Your task to perform on an android device: find snoozed emails in the gmail app Image 0: 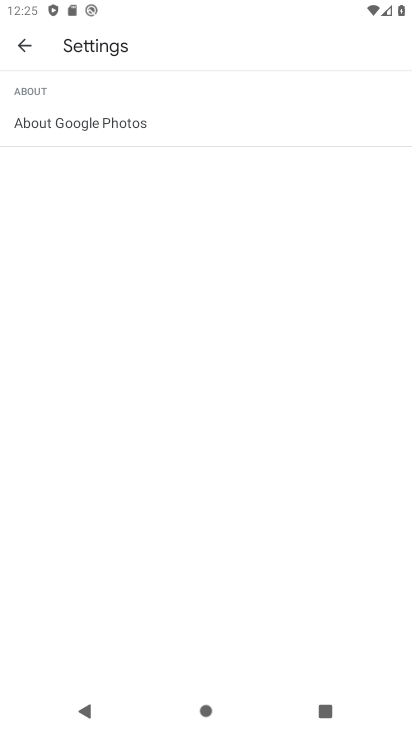
Step 0: press home button
Your task to perform on an android device: find snoozed emails in the gmail app Image 1: 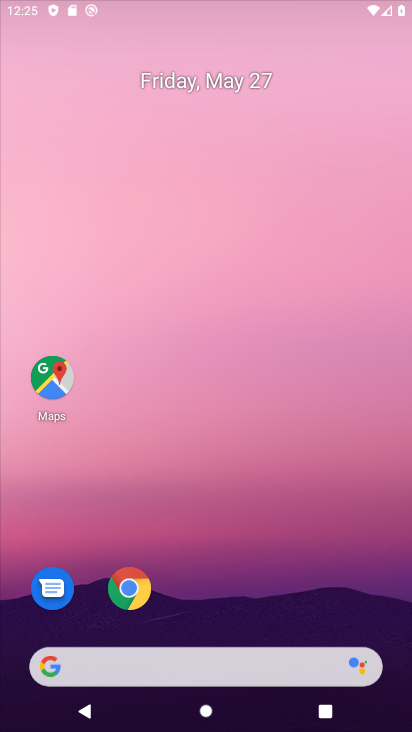
Step 1: drag from (133, 730) to (254, 60)
Your task to perform on an android device: find snoozed emails in the gmail app Image 2: 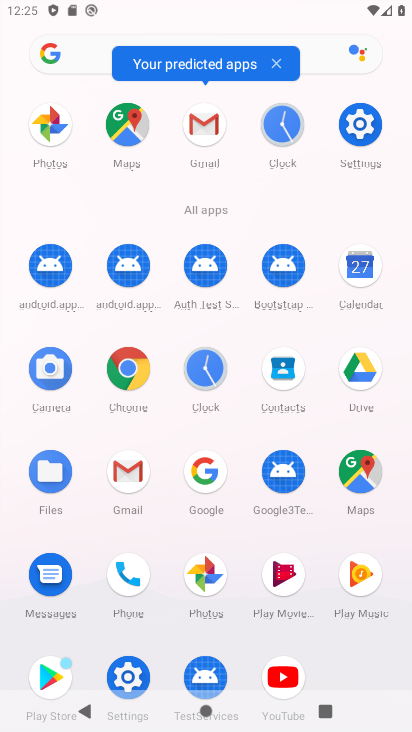
Step 2: click (191, 125)
Your task to perform on an android device: find snoozed emails in the gmail app Image 3: 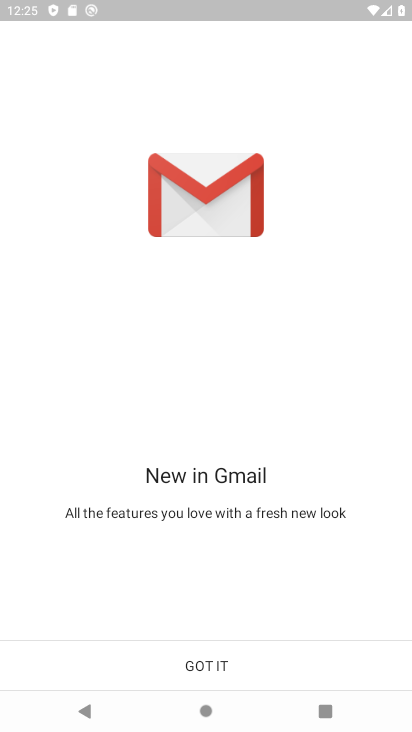
Step 3: click (221, 671)
Your task to perform on an android device: find snoozed emails in the gmail app Image 4: 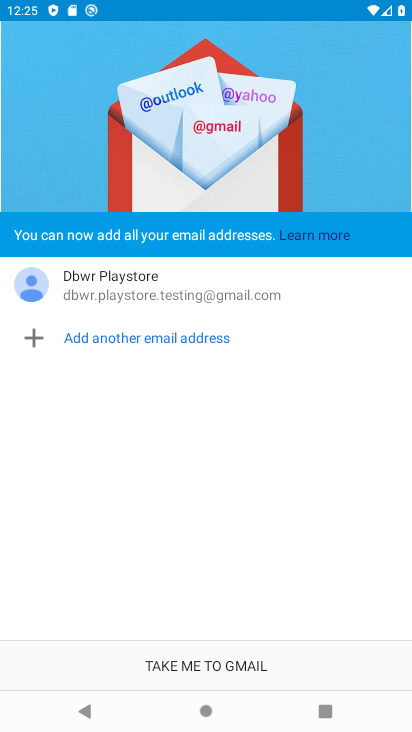
Step 4: click (212, 673)
Your task to perform on an android device: find snoozed emails in the gmail app Image 5: 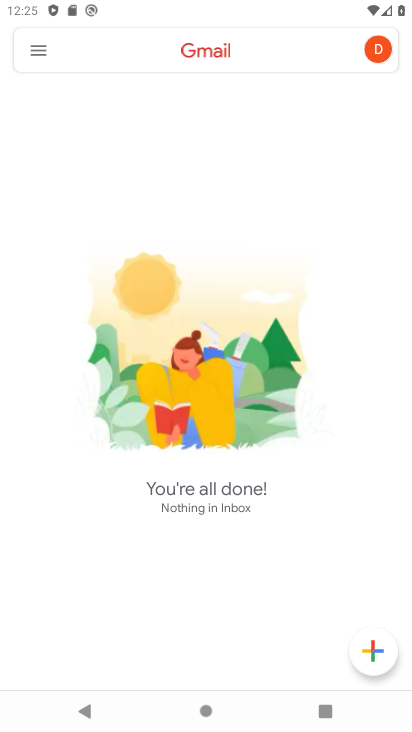
Step 5: click (28, 54)
Your task to perform on an android device: find snoozed emails in the gmail app Image 6: 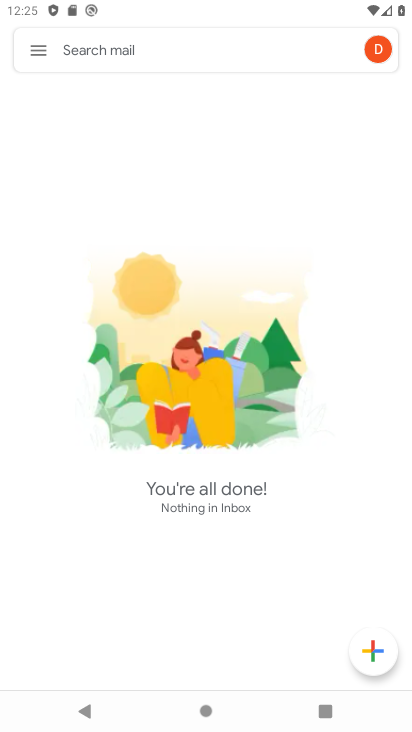
Step 6: click (38, 53)
Your task to perform on an android device: find snoozed emails in the gmail app Image 7: 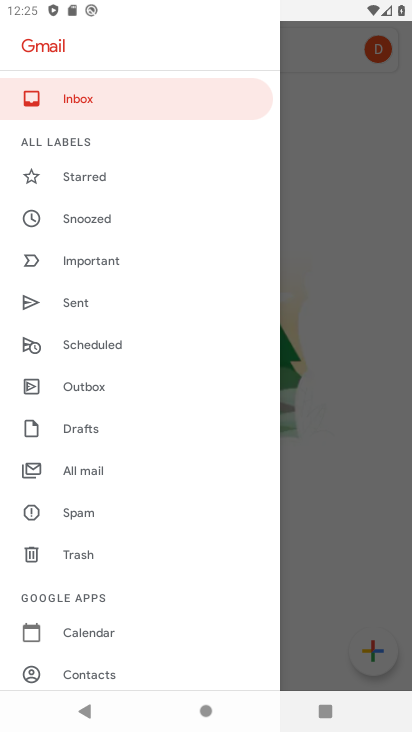
Step 7: click (81, 218)
Your task to perform on an android device: find snoozed emails in the gmail app Image 8: 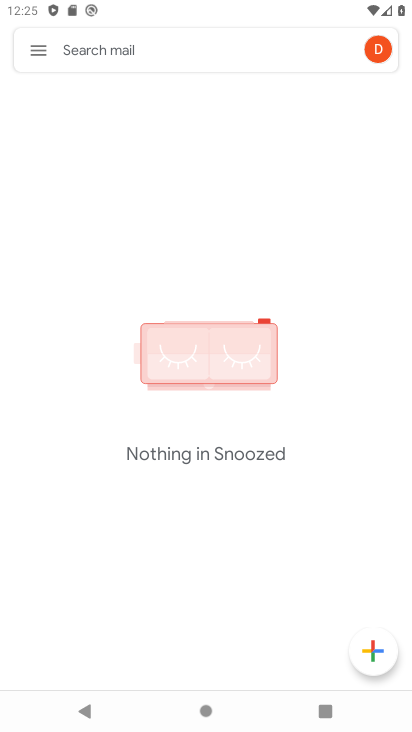
Step 8: task complete